Your task to perform on an android device: see sites visited before in the chrome app Image 0: 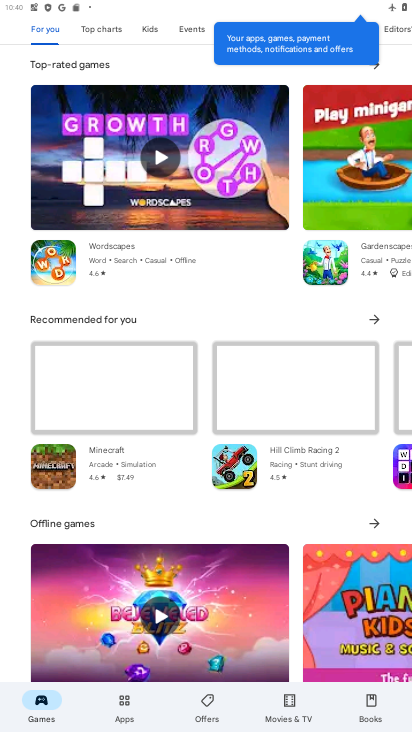
Step 0: press home button
Your task to perform on an android device: see sites visited before in the chrome app Image 1: 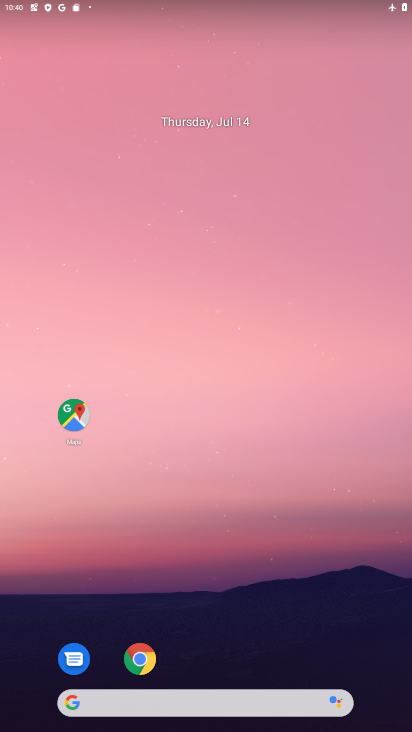
Step 1: drag from (285, 605) to (201, 153)
Your task to perform on an android device: see sites visited before in the chrome app Image 2: 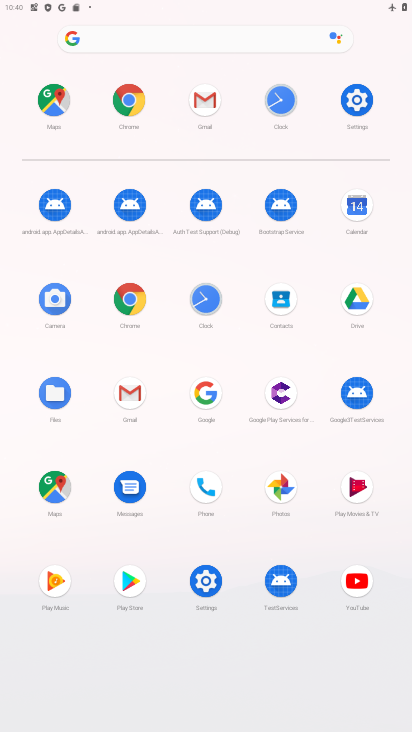
Step 2: click (129, 296)
Your task to perform on an android device: see sites visited before in the chrome app Image 3: 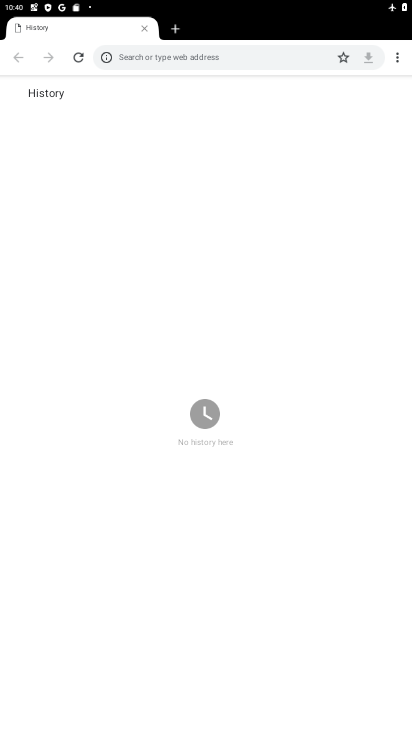
Step 3: task complete